Your task to perform on an android device: Do I have any events this weekend? Image 0: 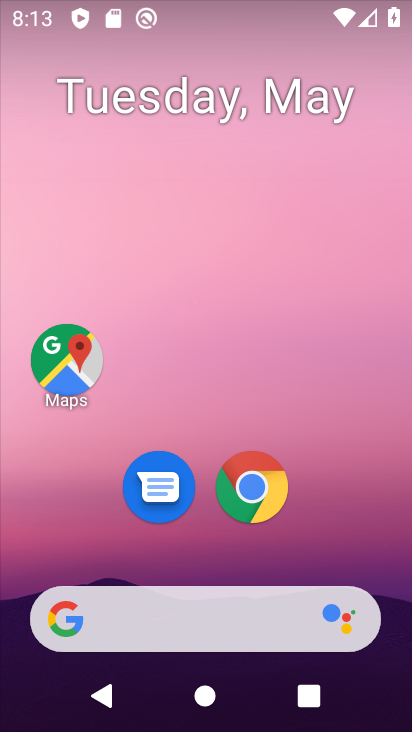
Step 0: drag from (193, 665) to (154, 149)
Your task to perform on an android device: Do I have any events this weekend? Image 1: 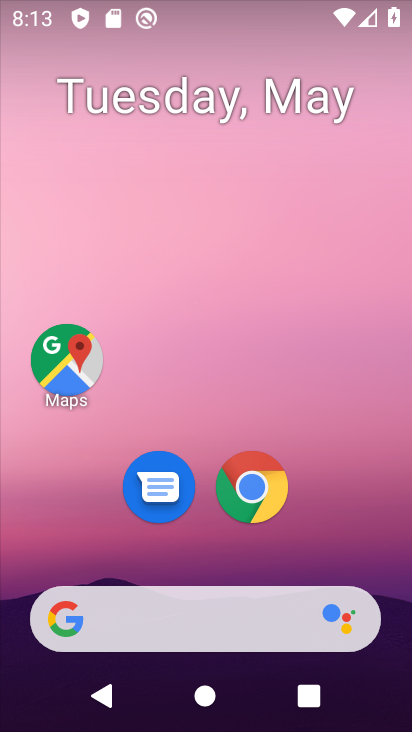
Step 1: drag from (234, 700) to (216, 318)
Your task to perform on an android device: Do I have any events this weekend? Image 2: 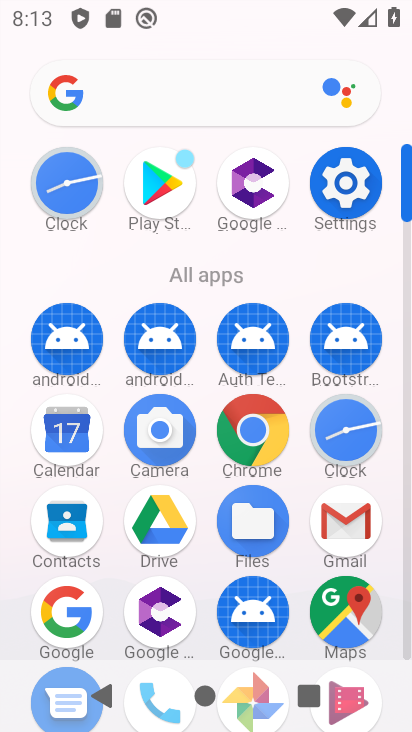
Step 2: drag from (189, 650) to (189, 337)
Your task to perform on an android device: Do I have any events this weekend? Image 3: 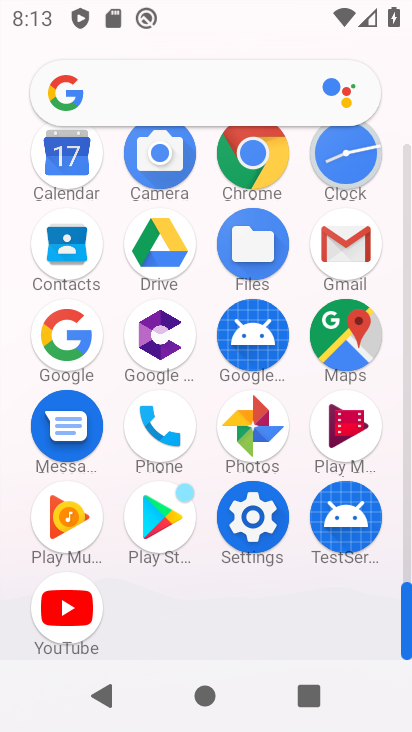
Step 3: click (66, 159)
Your task to perform on an android device: Do I have any events this weekend? Image 4: 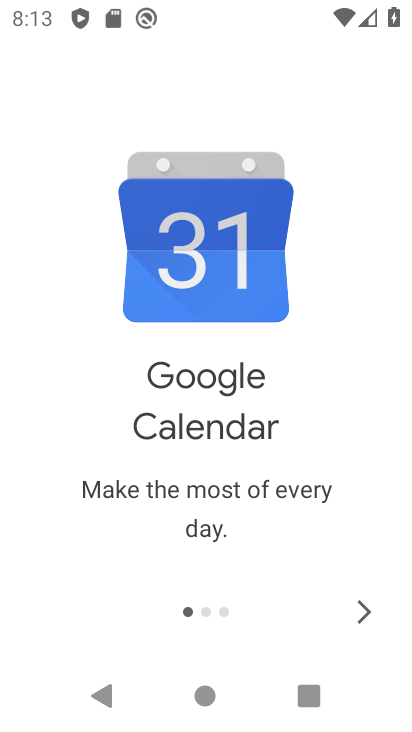
Step 4: click (365, 601)
Your task to perform on an android device: Do I have any events this weekend? Image 5: 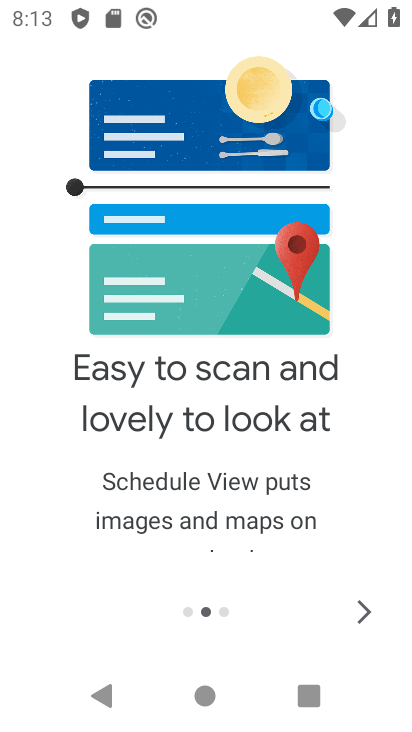
Step 5: click (353, 612)
Your task to perform on an android device: Do I have any events this weekend? Image 6: 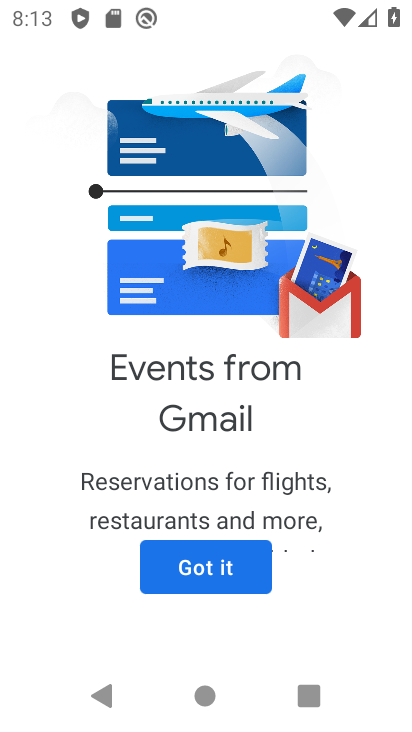
Step 6: click (221, 568)
Your task to perform on an android device: Do I have any events this weekend? Image 7: 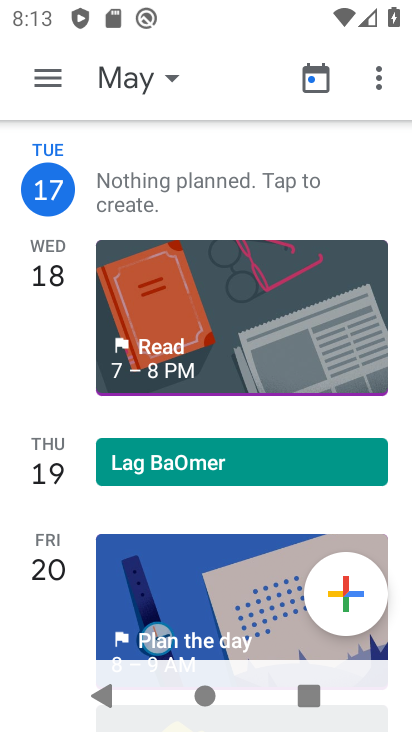
Step 7: click (46, 74)
Your task to perform on an android device: Do I have any events this weekend? Image 8: 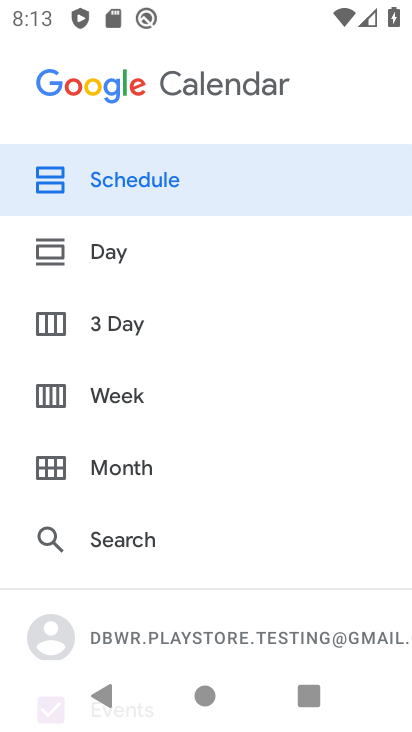
Step 8: drag from (160, 602) to (170, 270)
Your task to perform on an android device: Do I have any events this weekend? Image 9: 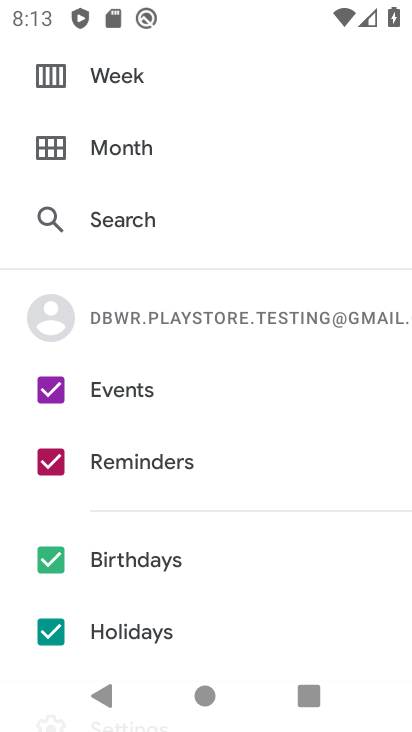
Step 9: click (44, 634)
Your task to perform on an android device: Do I have any events this weekend? Image 10: 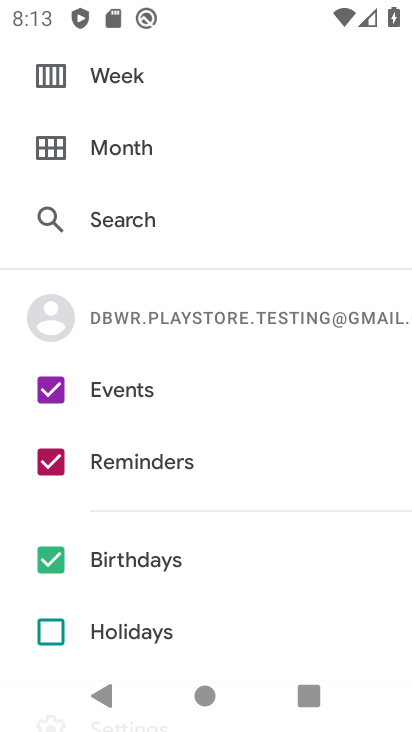
Step 10: click (48, 557)
Your task to perform on an android device: Do I have any events this weekend? Image 11: 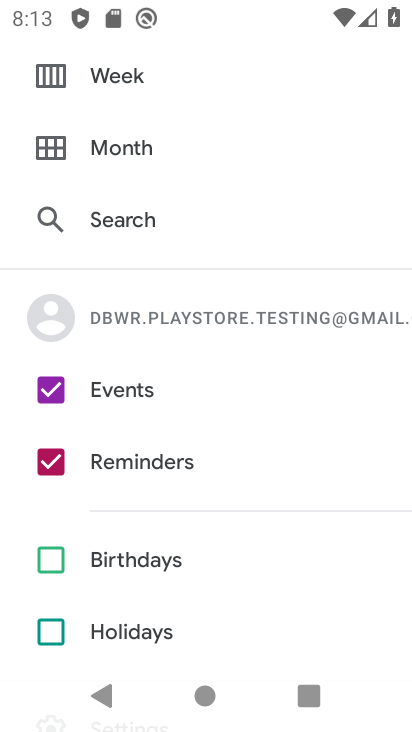
Step 11: click (45, 453)
Your task to perform on an android device: Do I have any events this weekend? Image 12: 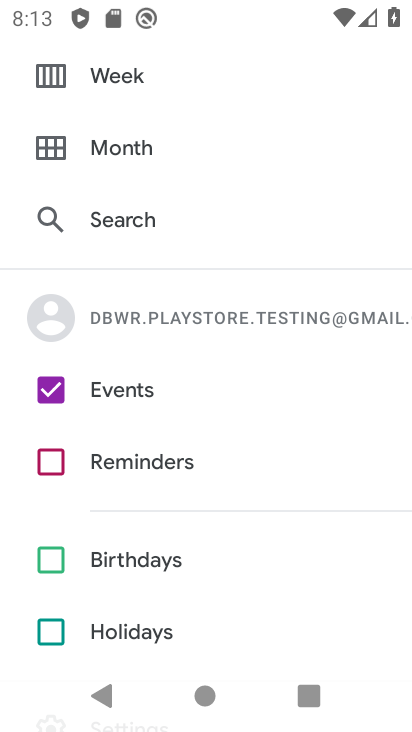
Step 12: drag from (211, 106) to (212, 416)
Your task to perform on an android device: Do I have any events this weekend? Image 13: 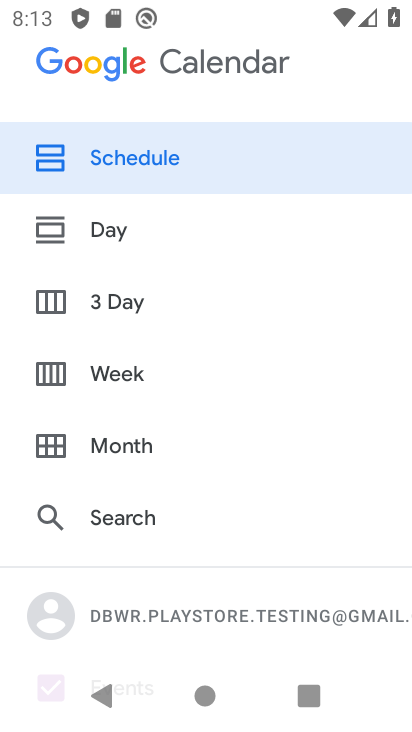
Step 13: click (113, 373)
Your task to perform on an android device: Do I have any events this weekend? Image 14: 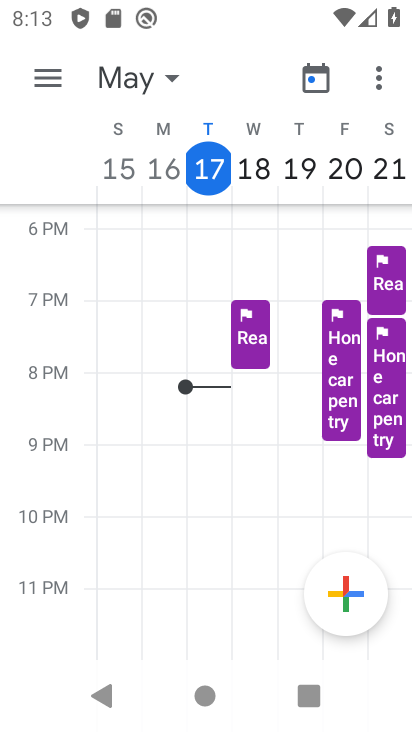
Step 14: click (392, 168)
Your task to perform on an android device: Do I have any events this weekend? Image 15: 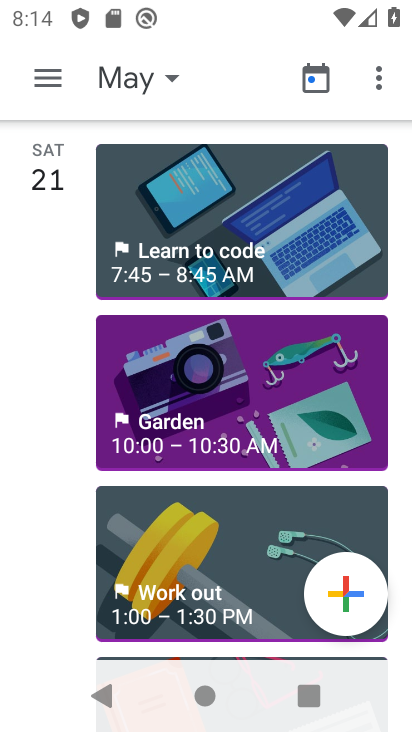
Step 15: task complete